Your task to perform on an android device: Open Yahoo.com Image 0: 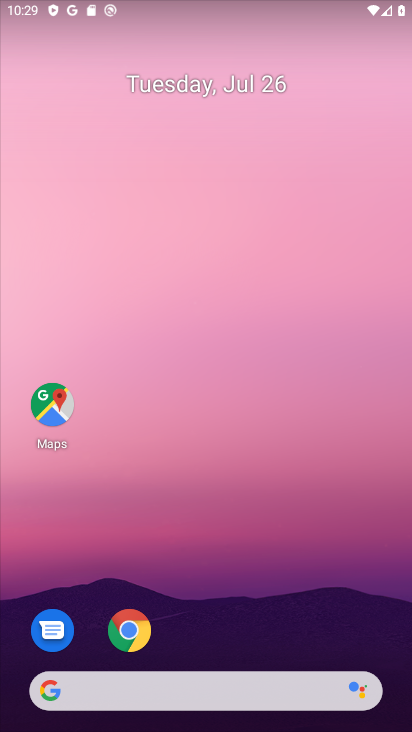
Step 0: click (200, 695)
Your task to perform on an android device: Open Yahoo.com Image 1: 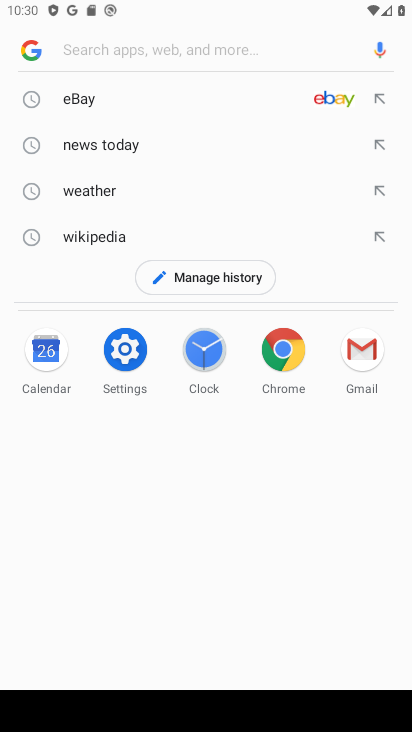
Step 1: type "yahoo.com"
Your task to perform on an android device: Open Yahoo.com Image 2: 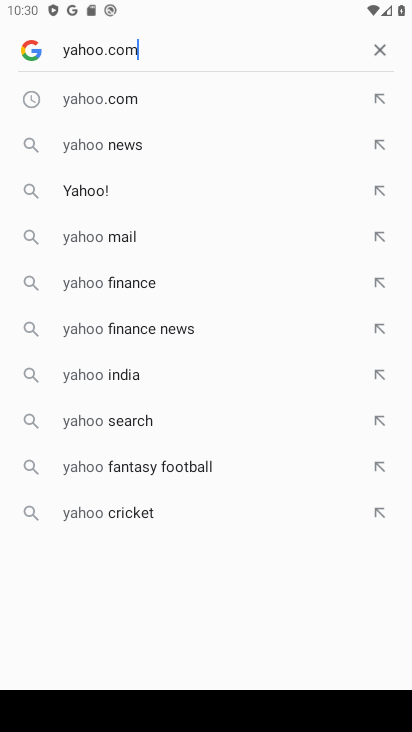
Step 2: press enter
Your task to perform on an android device: Open Yahoo.com Image 3: 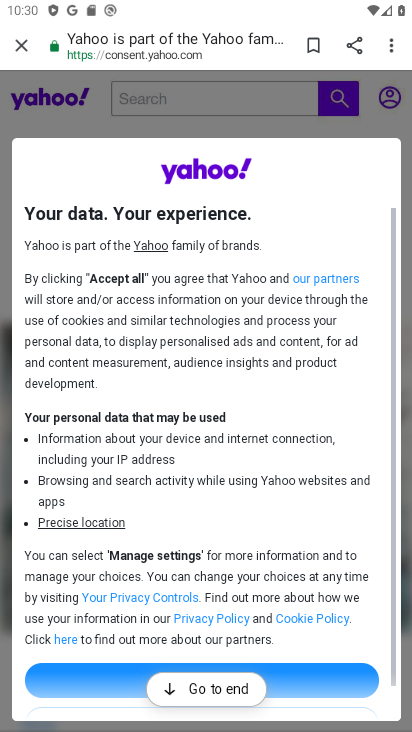
Step 3: task complete